Your task to perform on an android device: Search for sushi restaurants on Maps Image 0: 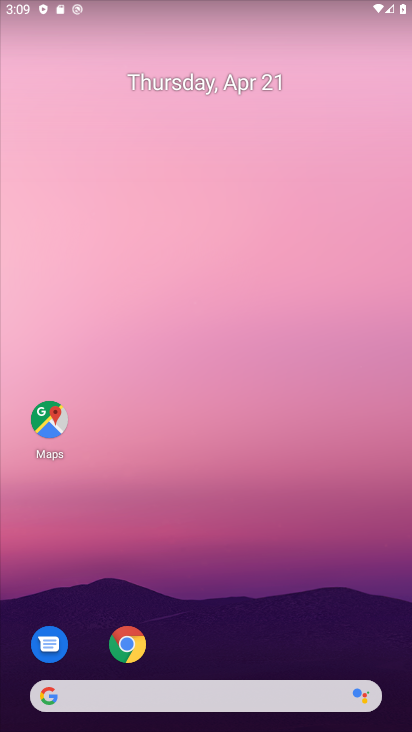
Step 0: click (41, 424)
Your task to perform on an android device: Search for sushi restaurants on Maps Image 1: 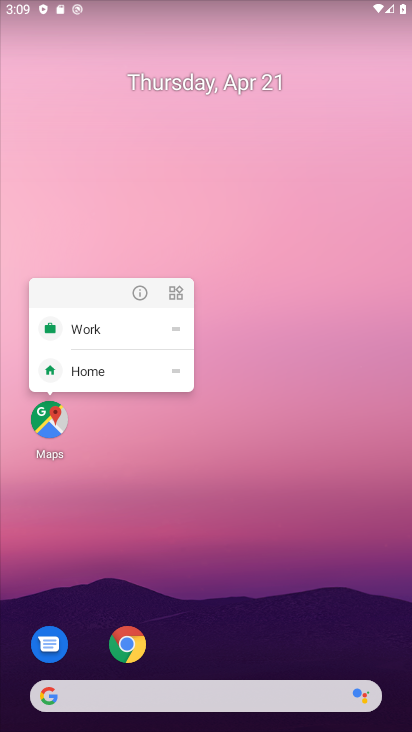
Step 1: click (42, 423)
Your task to perform on an android device: Search for sushi restaurants on Maps Image 2: 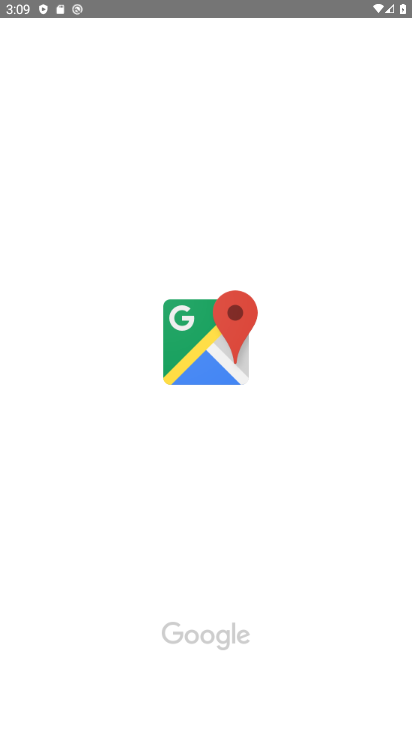
Step 2: click (40, 432)
Your task to perform on an android device: Search for sushi restaurants on Maps Image 3: 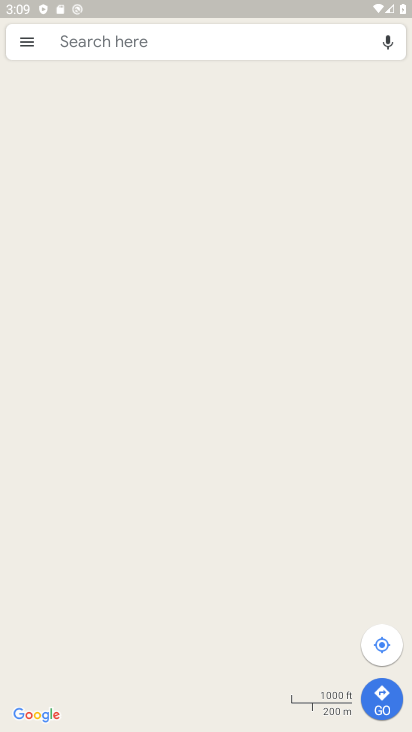
Step 3: click (92, 34)
Your task to perform on an android device: Search for sushi restaurants on Maps Image 4: 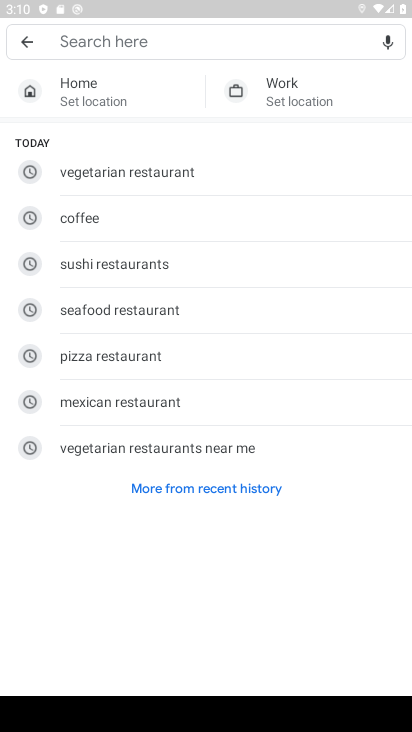
Step 4: click (189, 264)
Your task to perform on an android device: Search for sushi restaurants on Maps Image 5: 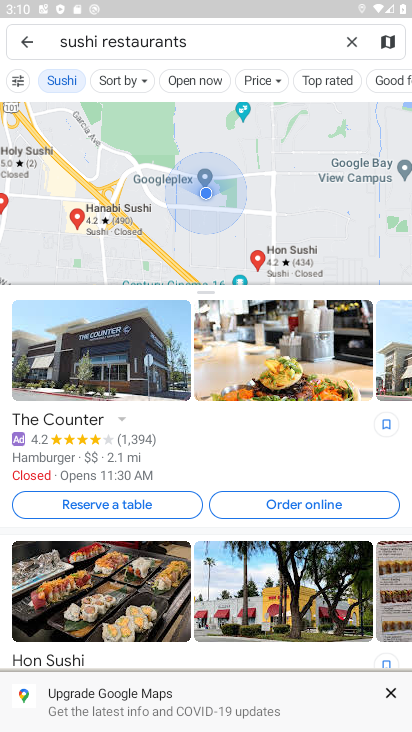
Step 5: task complete